Your task to perform on an android device: Open Chrome and go to settings Image 0: 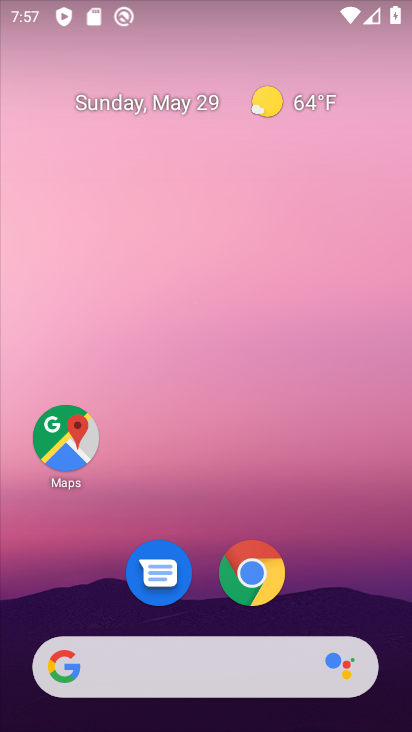
Step 0: drag from (134, 99) to (124, 63)
Your task to perform on an android device: Open Chrome and go to settings Image 1: 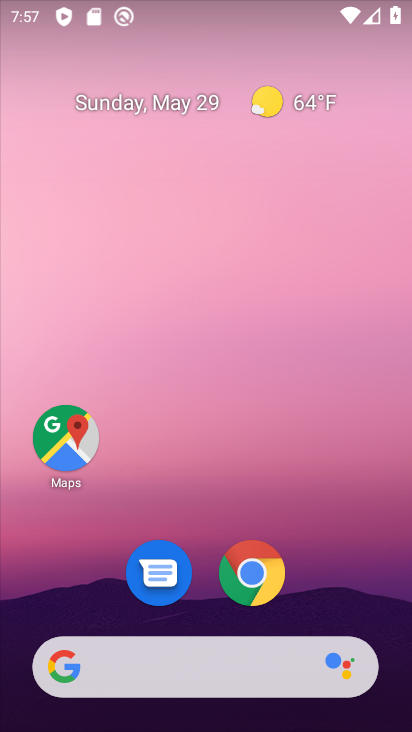
Step 1: drag from (226, 163) to (118, 24)
Your task to perform on an android device: Open Chrome and go to settings Image 2: 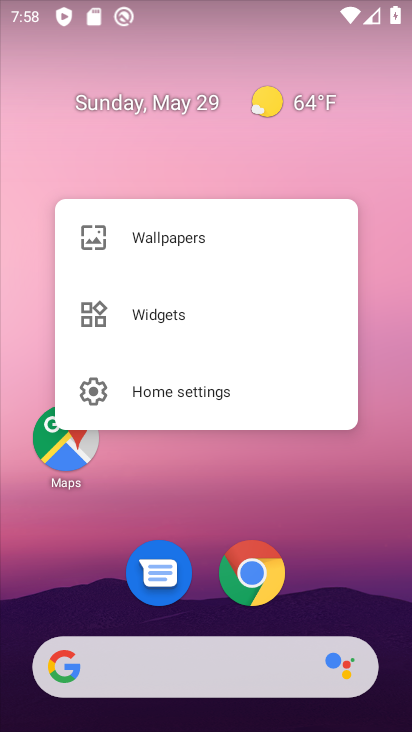
Step 2: drag from (207, 487) to (145, 54)
Your task to perform on an android device: Open Chrome and go to settings Image 3: 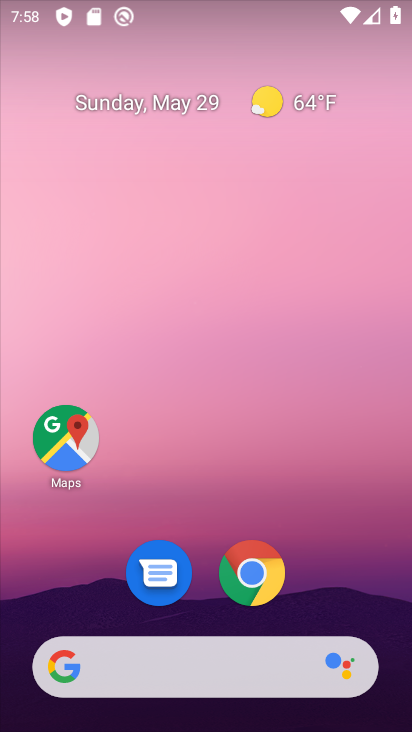
Step 3: drag from (264, 560) to (173, 78)
Your task to perform on an android device: Open Chrome and go to settings Image 4: 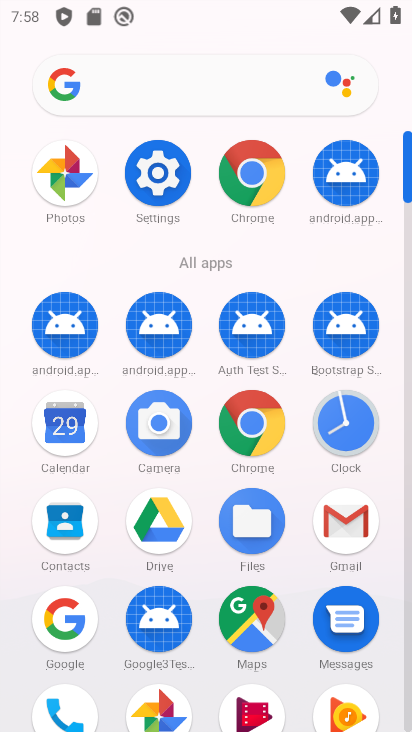
Step 4: click (149, 173)
Your task to perform on an android device: Open Chrome and go to settings Image 5: 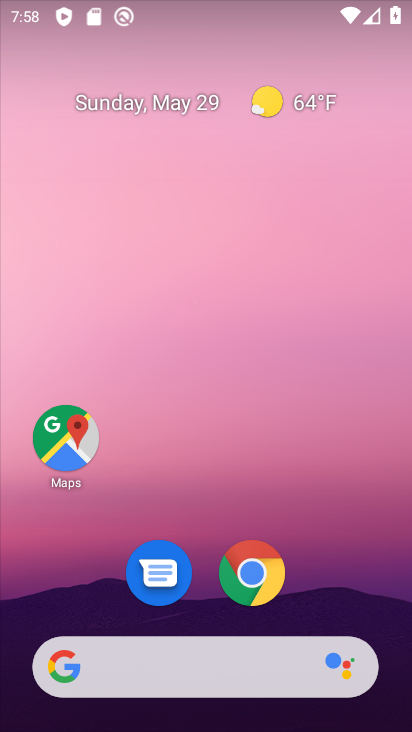
Step 5: task complete